Your task to perform on an android device: Go to Amazon Image 0: 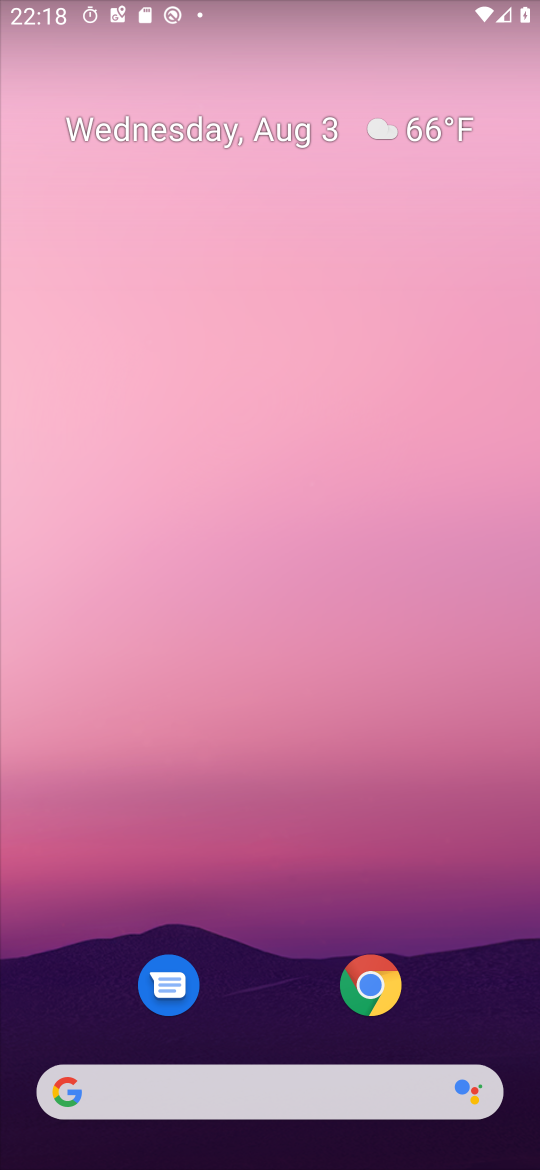
Step 0: click (380, 974)
Your task to perform on an android device: Go to Amazon Image 1: 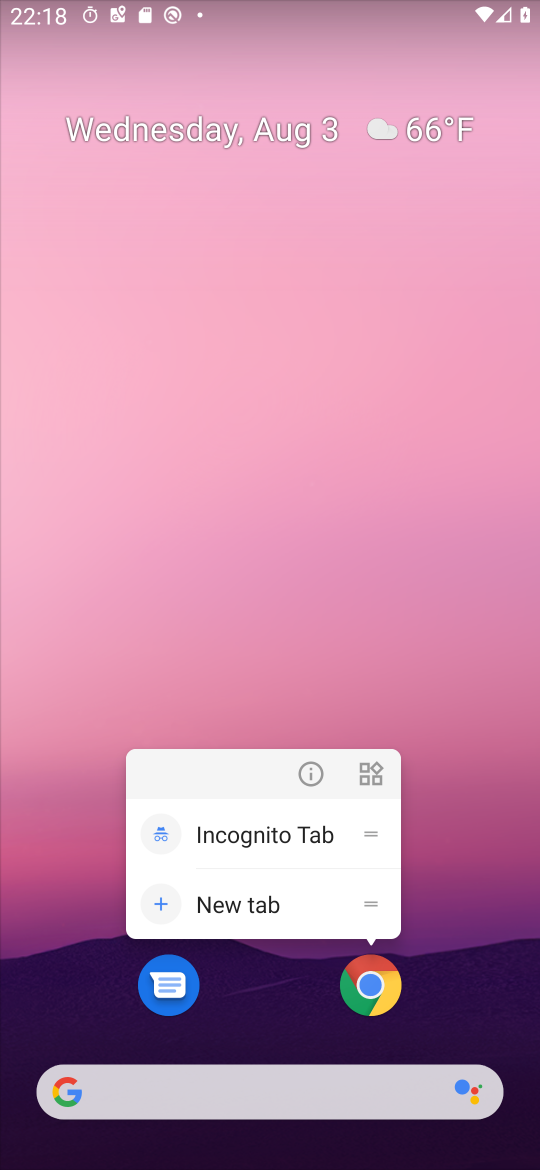
Step 1: click (380, 974)
Your task to perform on an android device: Go to Amazon Image 2: 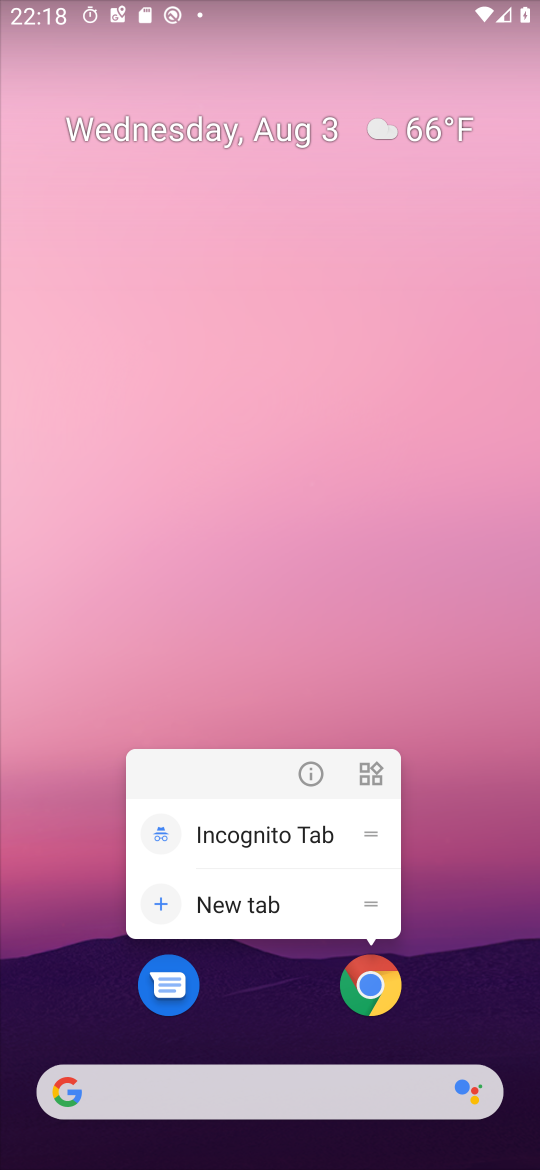
Step 2: click (380, 974)
Your task to perform on an android device: Go to Amazon Image 3: 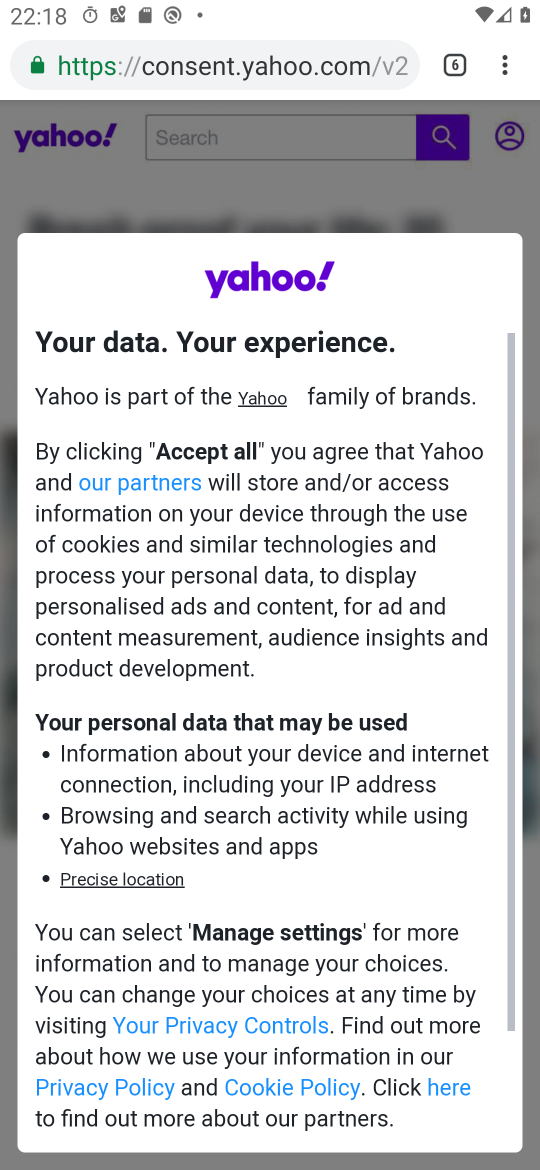
Step 3: click (449, 71)
Your task to perform on an android device: Go to Amazon Image 4: 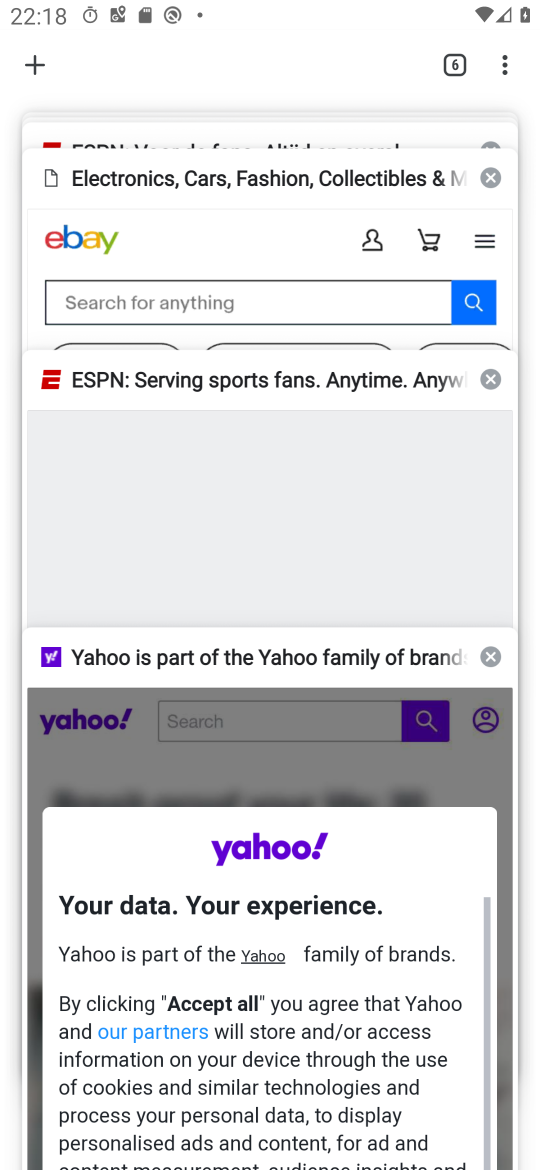
Step 4: click (29, 51)
Your task to perform on an android device: Go to Amazon Image 5: 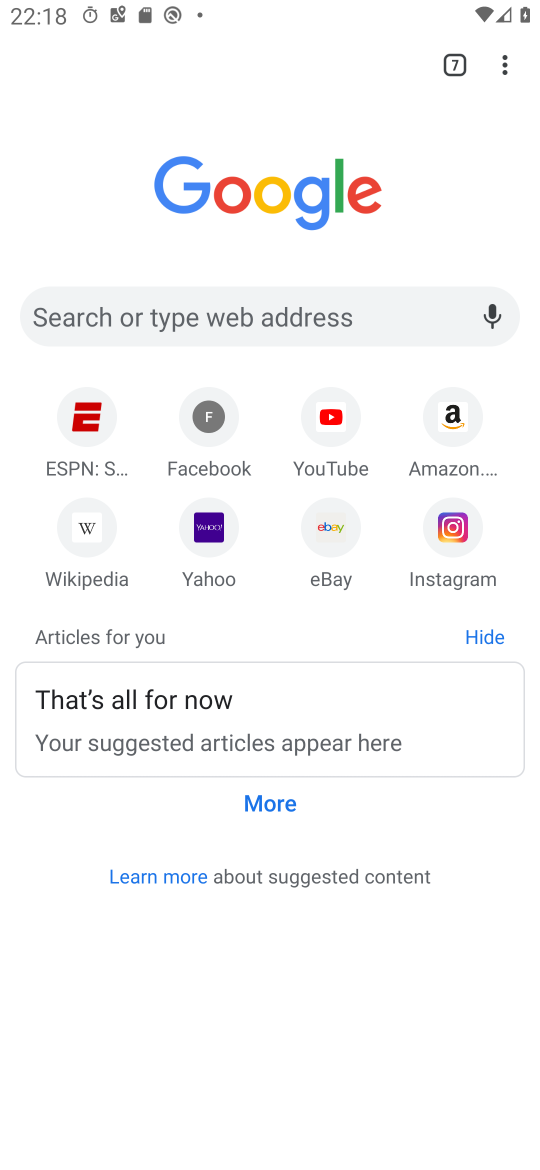
Step 5: click (445, 409)
Your task to perform on an android device: Go to Amazon Image 6: 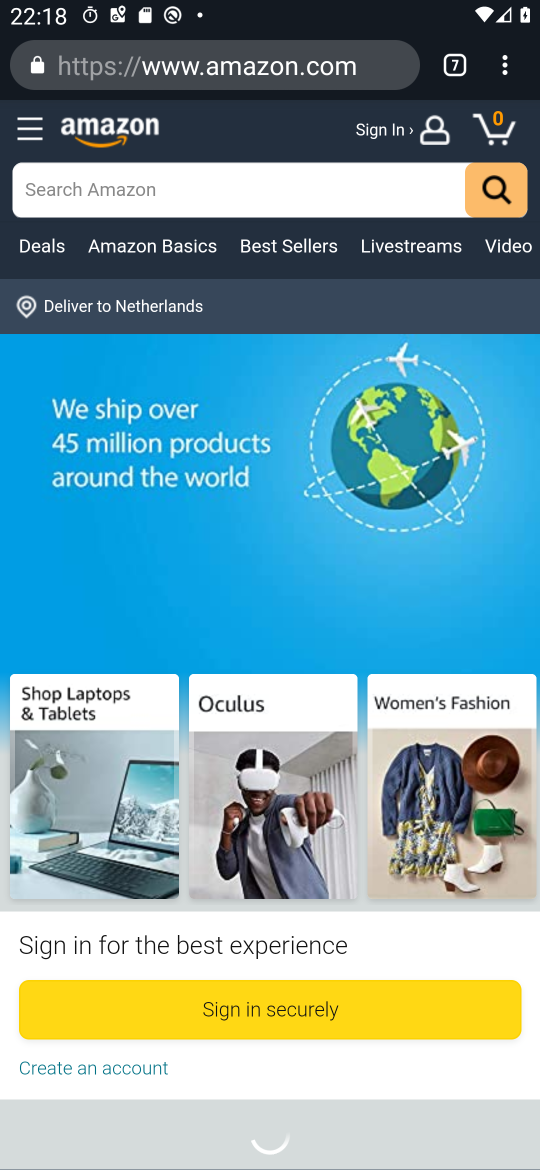
Step 6: task complete